Your task to perform on an android device: add a contact Image 0: 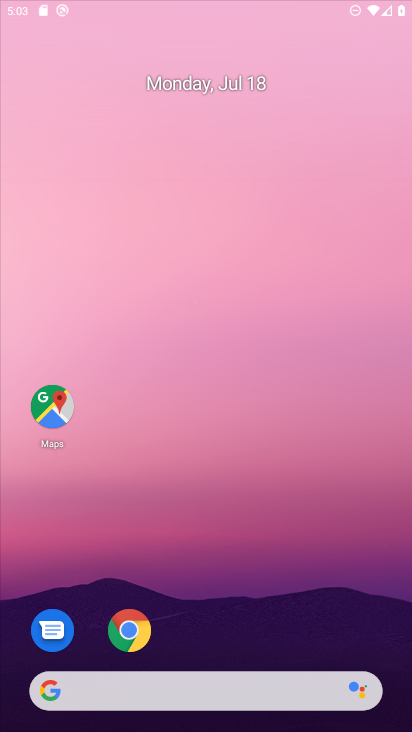
Step 0: press home button
Your task to perform on an android device: add a contact Image 1: 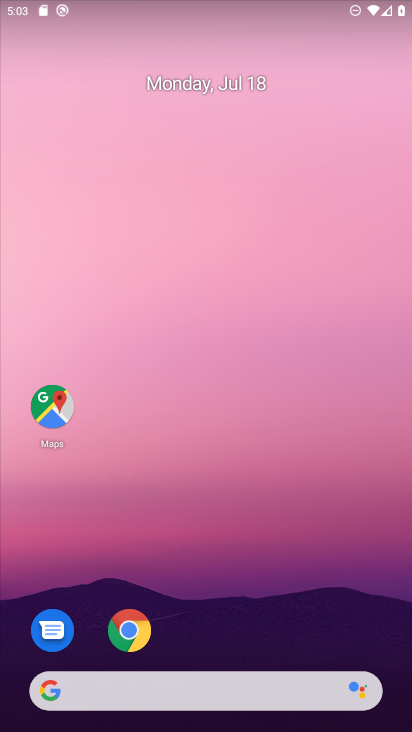
Step 1: drag from (228, 650) to (312, 98)
Your task to perform on an android device: add a contact Image 2: 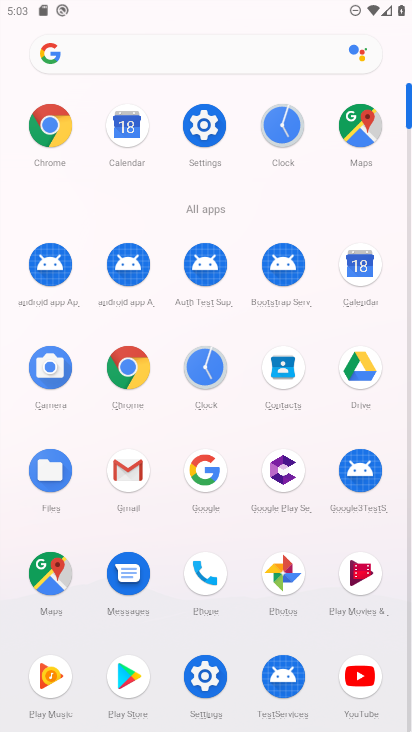
Step 2: click (281, 361)
Your task to perform on an android device: add a contact Image 3: 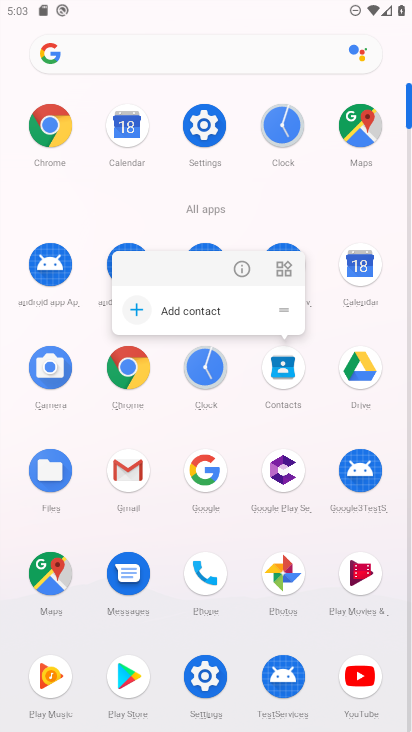
Step 3: click (286, 370)
Your task to perform on an android device: add a contact Image 4: 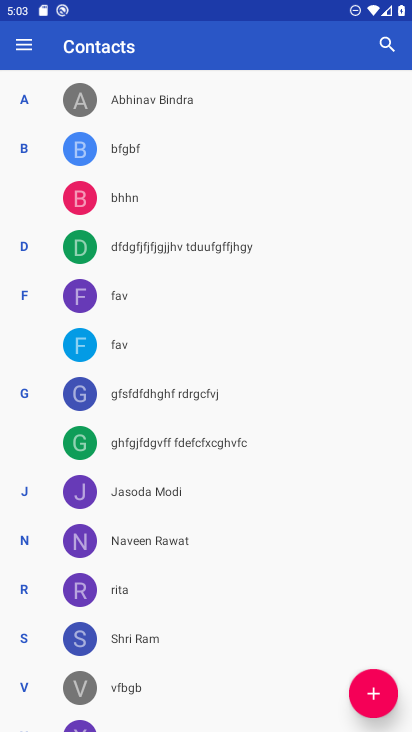
Step 4: click (364, 693)
Your task to perform on an android device: add a contact Image 5: 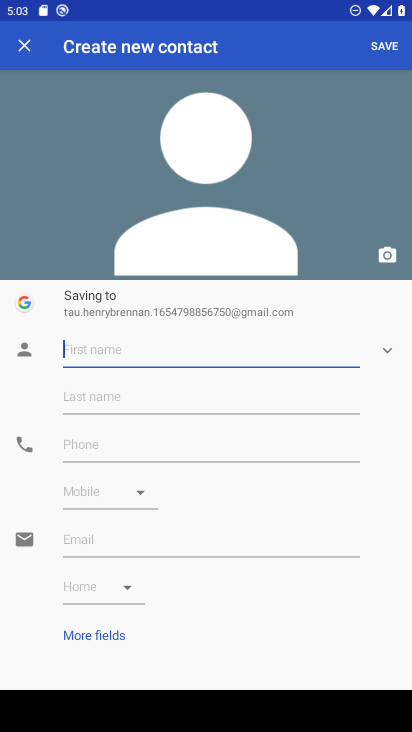
Step 5: type "aprnkt srgpta"
Your task to perform on an android device: add a contact Image 6: 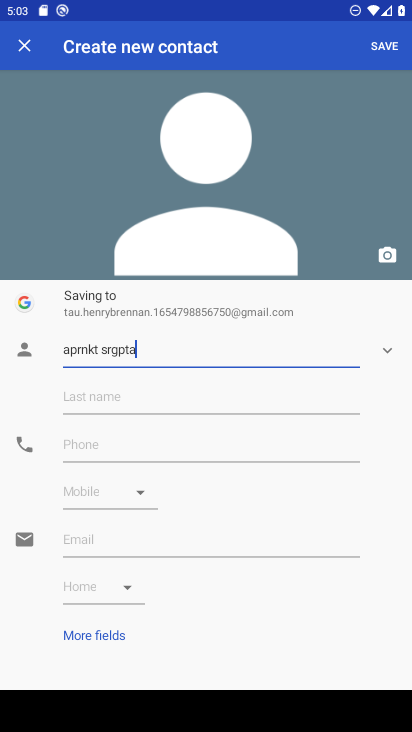
Step 6: type ""
Your task to perform on an android device: add a contact Image 7: 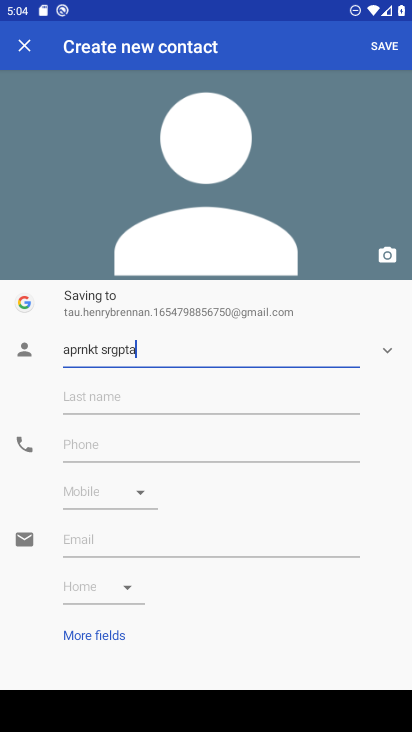
Step 7: click (385, 45)
Your task to perform on an android device: add a contact Image 8: 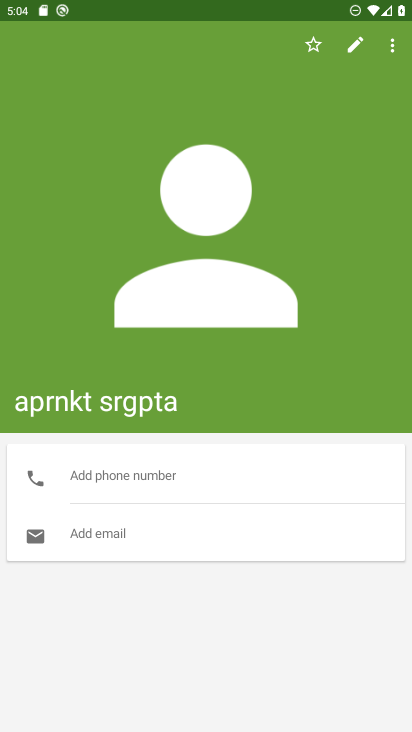
Step 8: task complete